Your task to perform on an android device: Go to wifi settings Image 0: 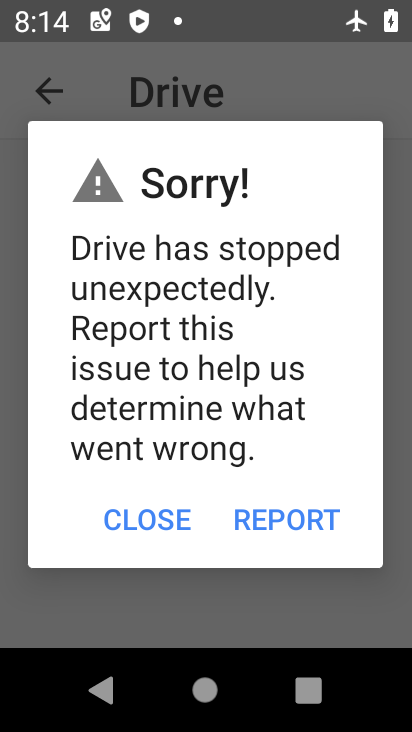
Step 0: press home button
Your task to perform on an android device: Go to wifi settings Image 1: 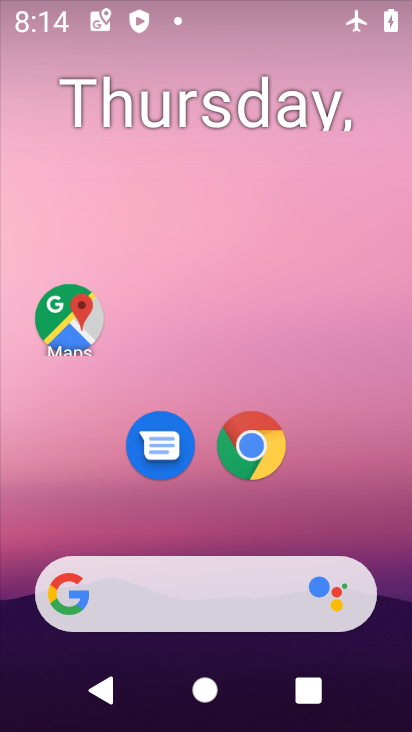
Step 1: drag from (381, 606) to (284, 77)
Your task to perform on an android device: Go to wifi settings Image 2: 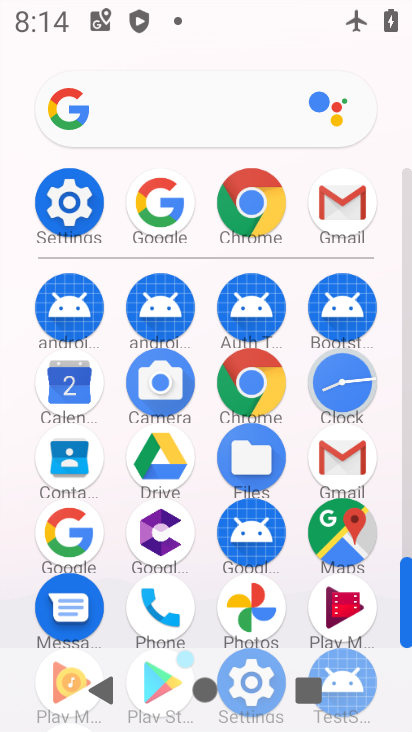
Step 2: click (87, 218)
Your task to perform on an android device: Go to wifi settings Image 3: 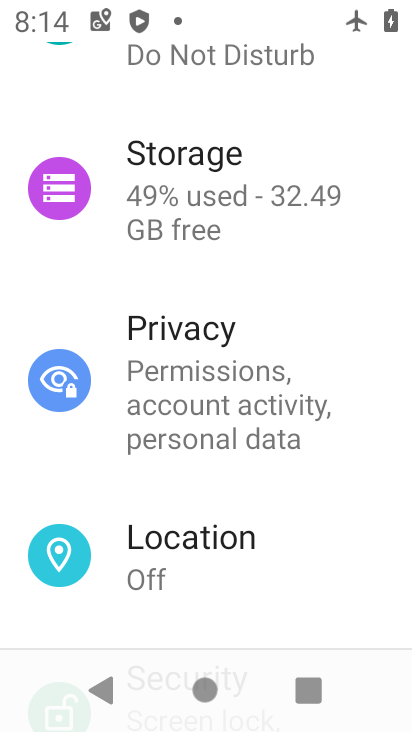
Step 3: drag from (301, 167) to (350, 691)
Your task to perform on an android device: Go to wifi settings Image 4: 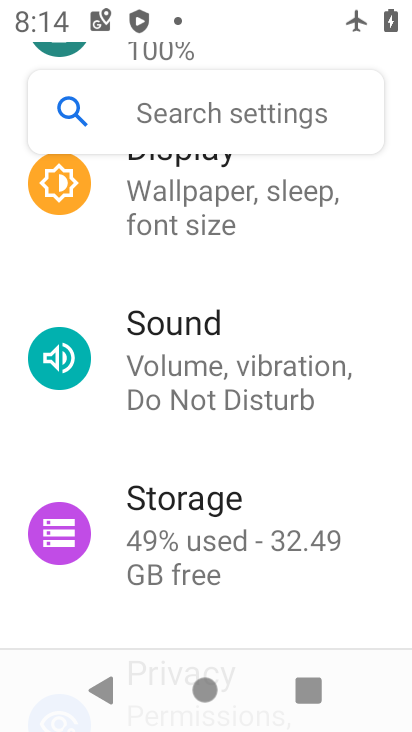
Step 4: drag from (272, 167) to (221, 603)
Your task to perform on an android device: Go to wifi settings Image 5: 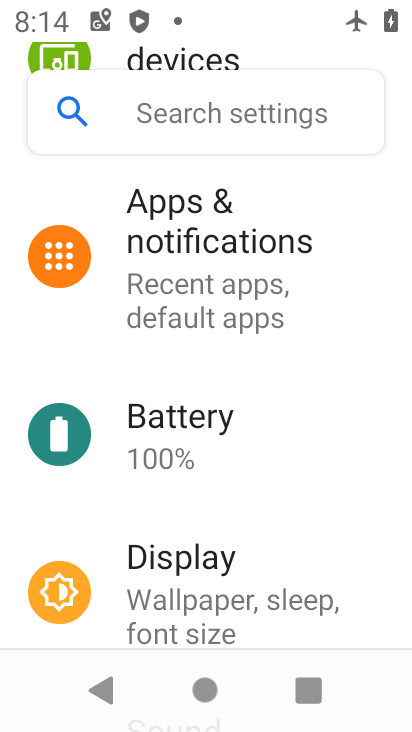
Step 5: drag from (190, 194) to (163, 691)
Your task to perform on an android device: Go to wifi settings Image 6: 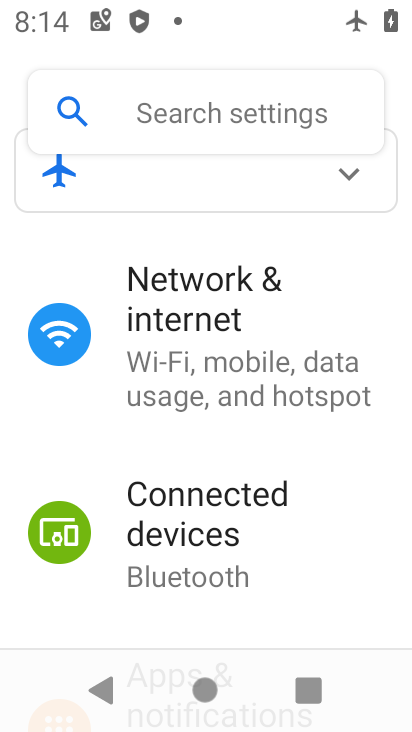
Step 6: click (205, 334)
Your task to perform on an android device: Go to wifi settings Image 7: 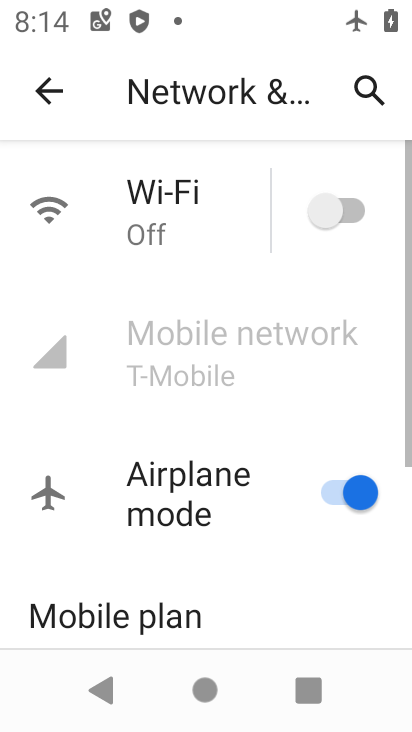
Step 7: click (211, 194)
Your task to perform on an android device: Go to wifi settings Image 8: 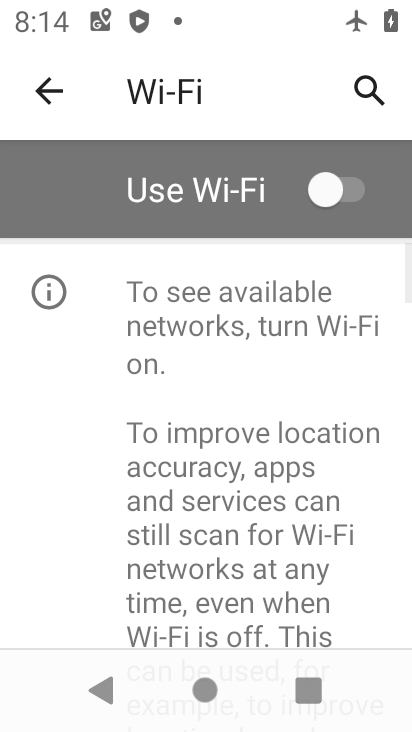
Step 8: task complete